Your task to perform on an android device: set default search engine in the chrome app Image 0: 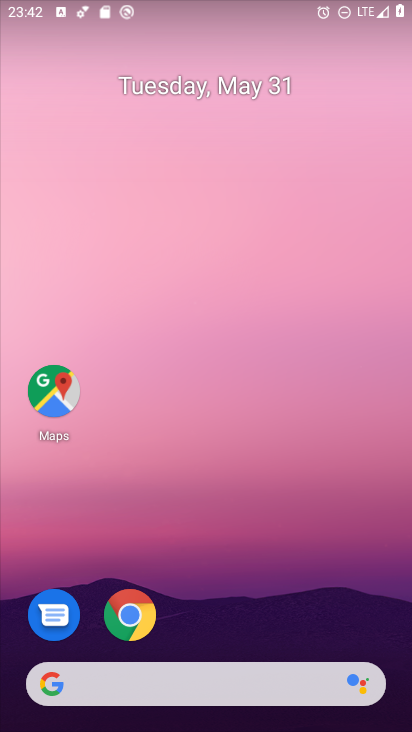
Step 0: click (129, 615)
Your task to perform on an android device: set default search engine in the chrome app Image 1: 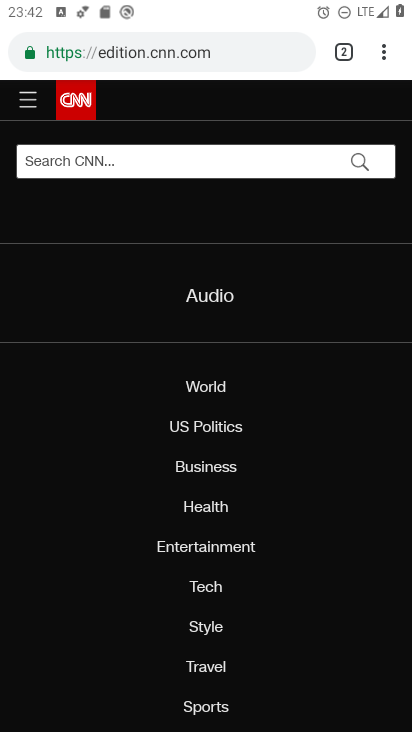
Step 1: click (385, 52)
Your task to perform on an android device: set default search engine in the chrome app Image 2: 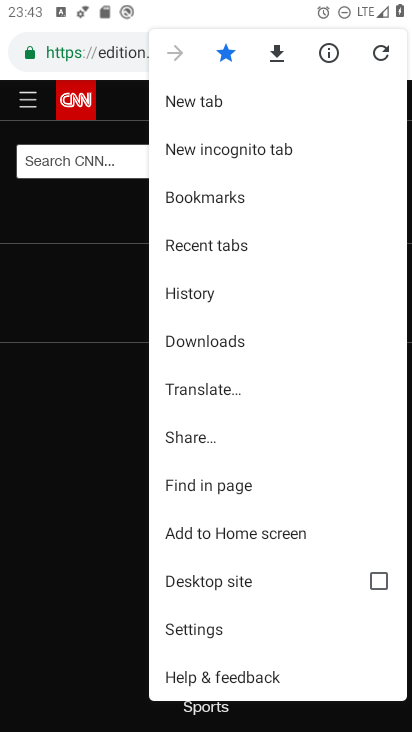
Step 2: click (185, 629)
Your task to perform on an android device: set default search engine in the chrome app Image 3: 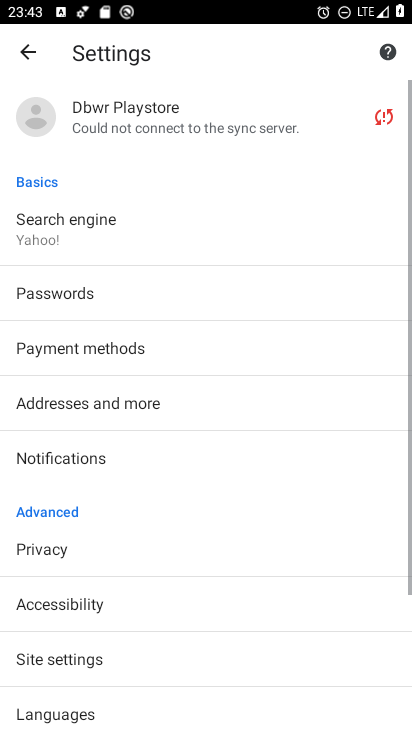
Step 3: click (65, 224)
Your task to perform on an android device: set default search engine in the chrome app Image 4: 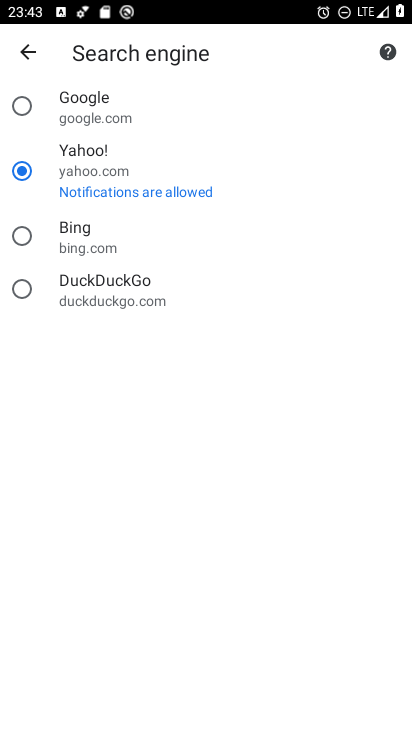
Step 4: click (25, 104)
Your task to perform on an android device: set default search engine in the chrome app Image 5: 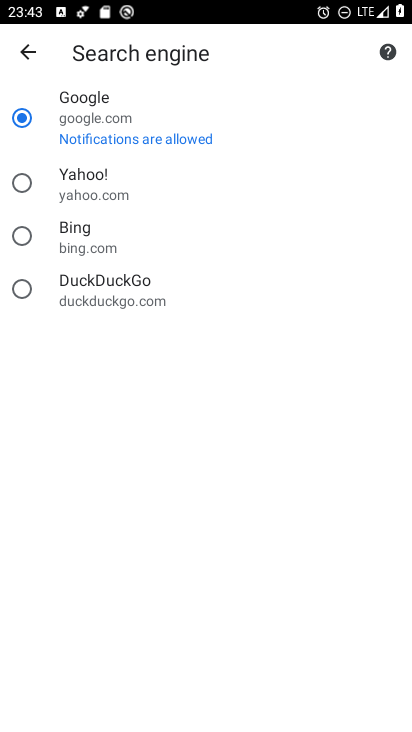
Step 5: task complete